Your task to perform on an android device: add a contact Image 0: 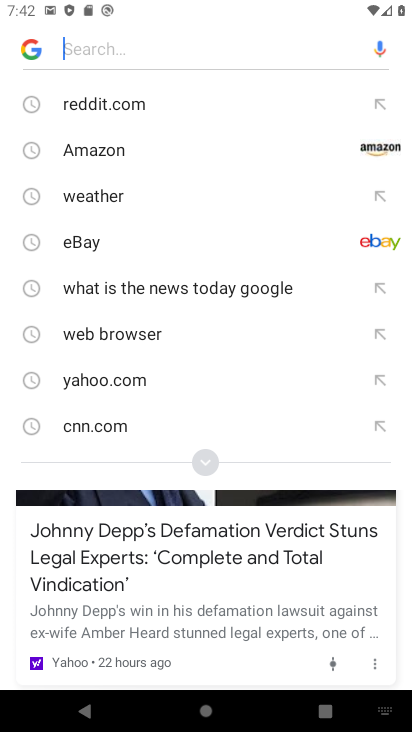
Step 0: press home button
Your task to perform on an android device: add a contact Image 1: 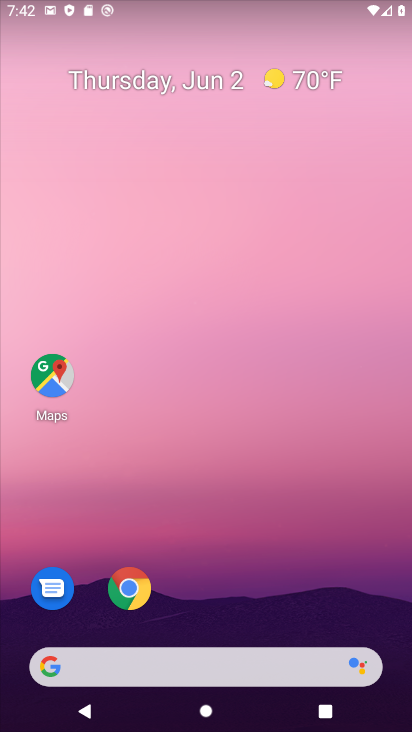
Step 1: drag from (216, 625) to (246, 141)
Your task to perform on an android device: add a contact Image 2: 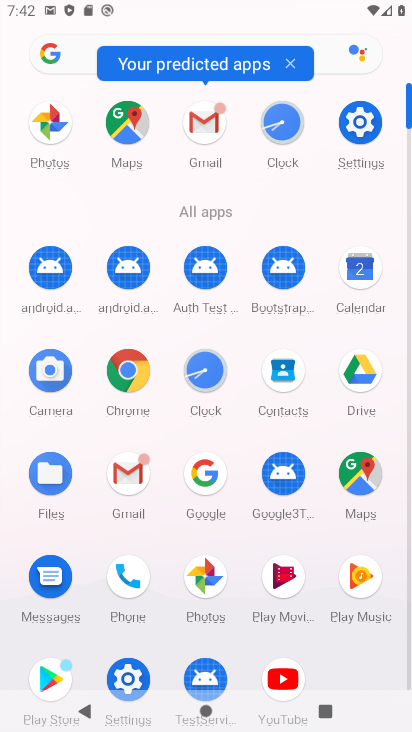
Step 2: click (297, 399)
Your task to perform on an android device: add a contact Image 3: 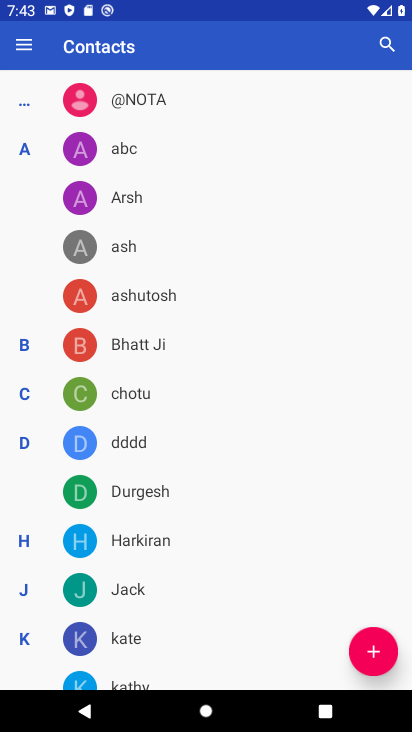
Step 3: click (365, 640)
Your task to perform on an android device: add a contact Image 4: 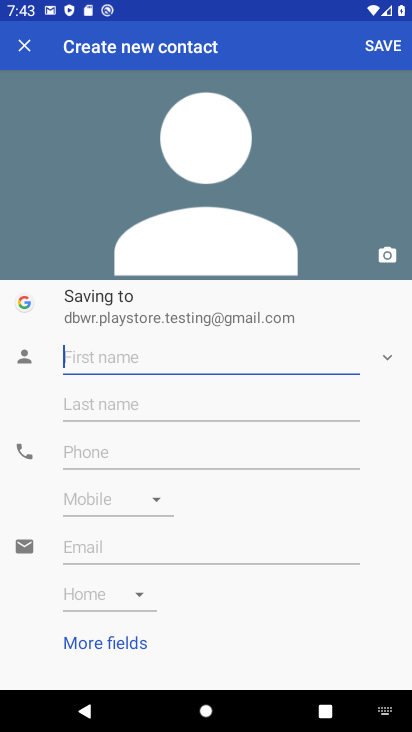
Step 4: type "feind"
Your task to perform on an android device: add a contact Image 5: 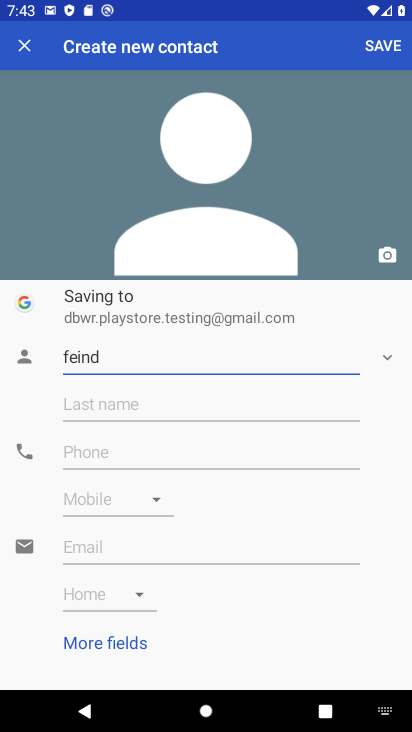
Step 5: click (383, 47)
Your task to perform on an android device: add a contact Image 6: 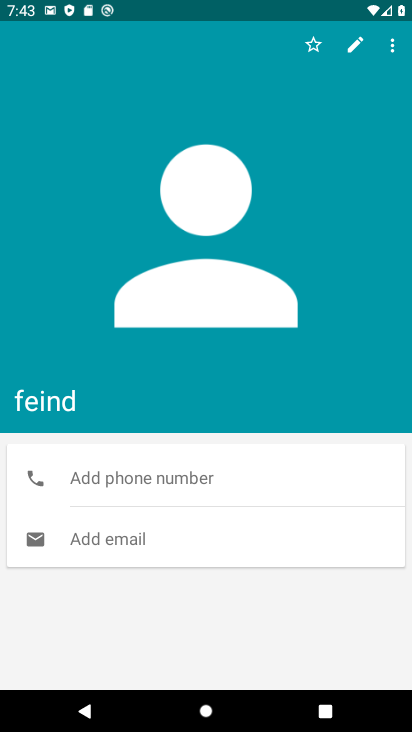
Step 6: task complete